Your task to perform on an android device: Open the map Image 0: 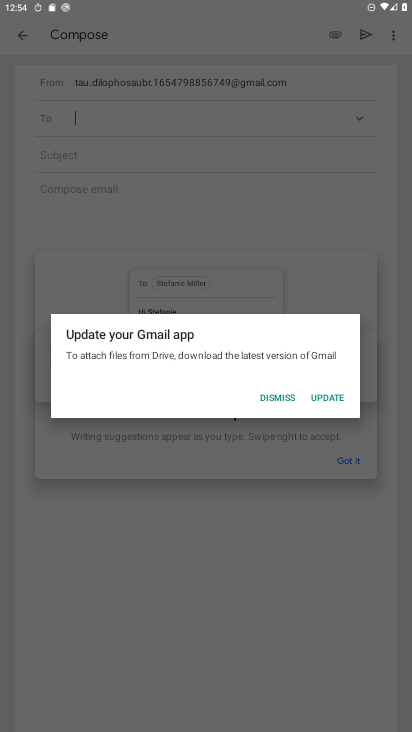
Step 0: press home button
Your task to perform on an android device: Open the map Image 1: 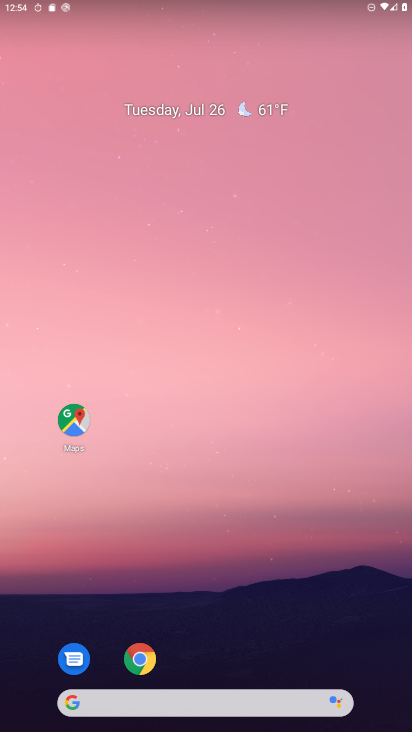
Step 1: click (71, 422)
Your task to perform on an android device: Open the map Image 2: 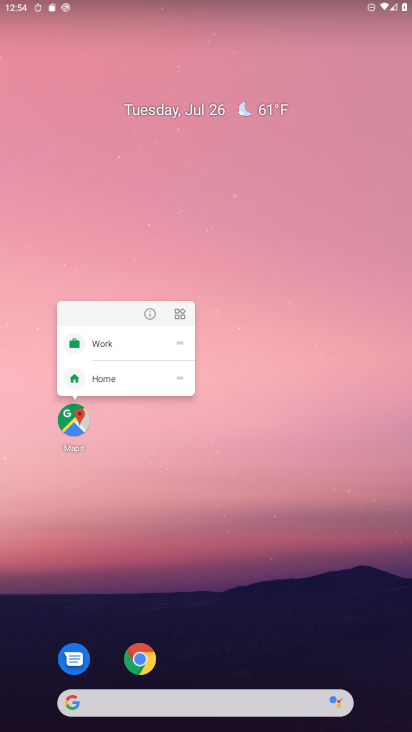
Step 2: click (70, 414)
Your task to perform on an android device: Open the map Image 3: 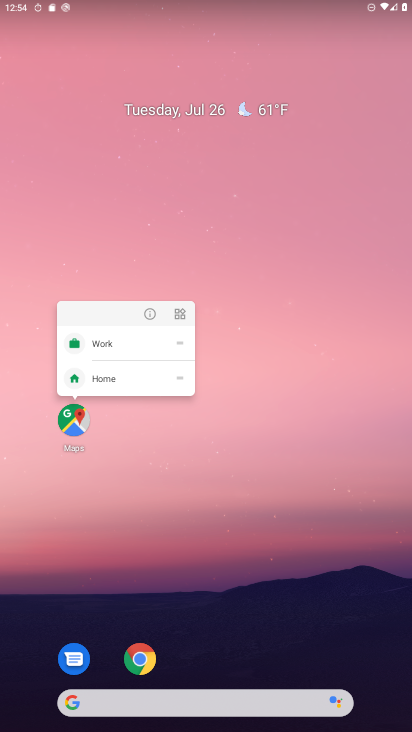
Step 3: click (70, 416)
Your task to perform on an android device: Open the map Image 4: 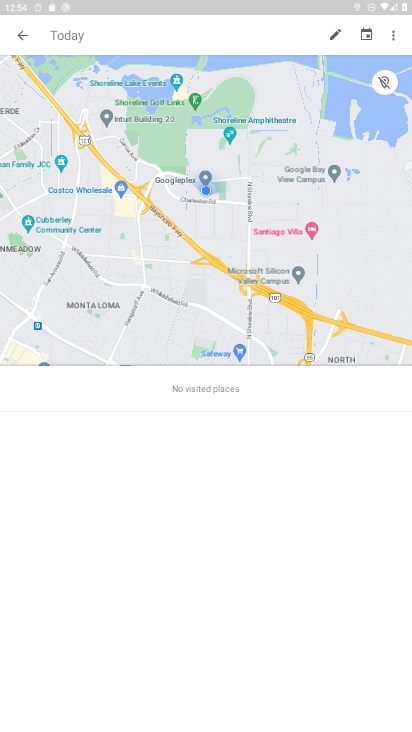
Step 4: click (25, 34)
Your task to perform on an android device: Open the map Image 5: 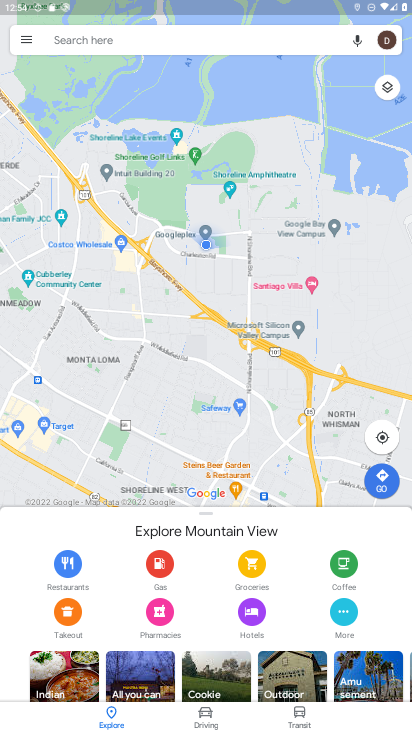
Step 5: task complete